Your task to perform on an android device: Open Maps and search for coffee Image 0: 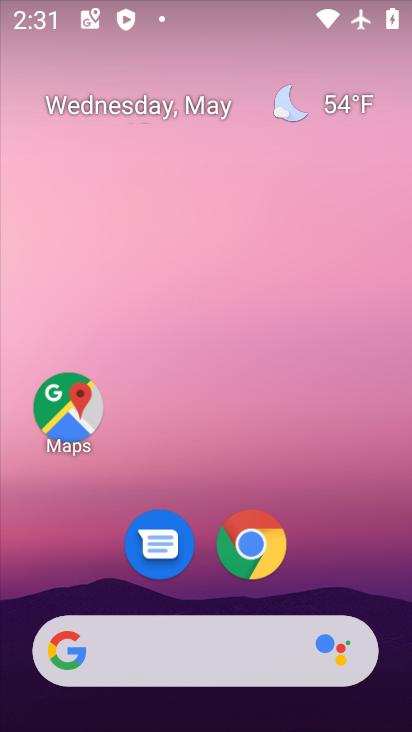
Step 0: drag from (334, 557) to (322, 93)
Your task to perform on an android device: Open Maps and search for coffee Image 1: 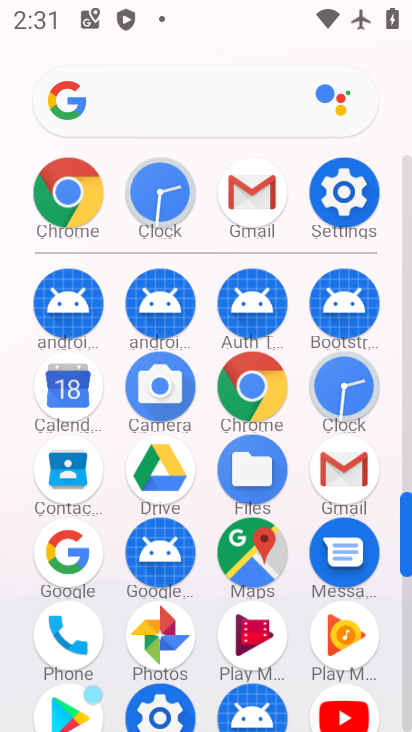
Step 1: click (244, 561)
Your task to perform on an android device: Open Maps and search for coffee Image 2: 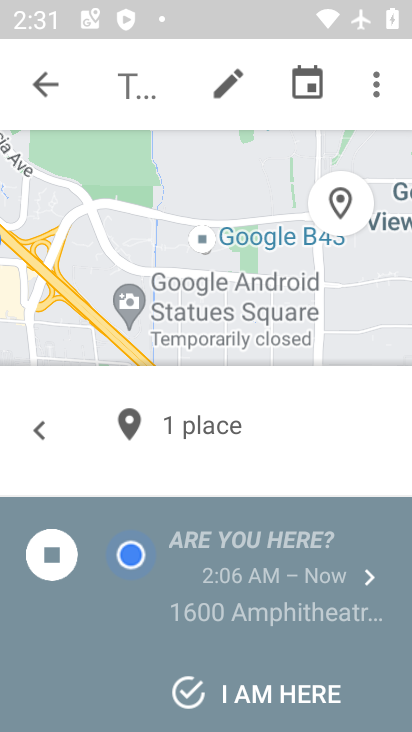
Step 2: click (32, 86)
Your task to perform on an android device: Open Maps and search for coffee Image 3: 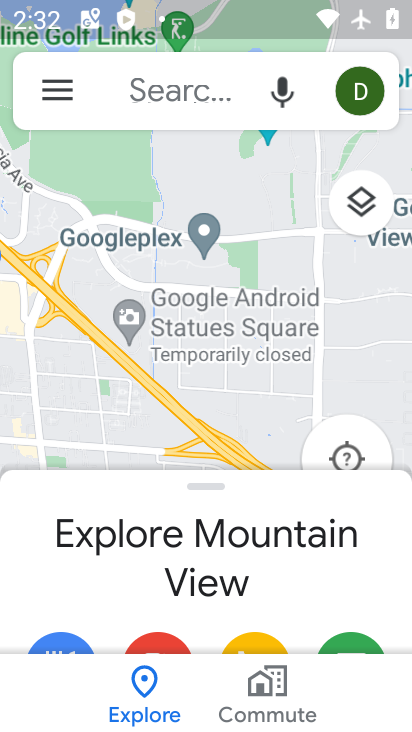
Step 3: click (106, 79)
Your task to perform on an android device: Open Maps and search for coffee Image 4: 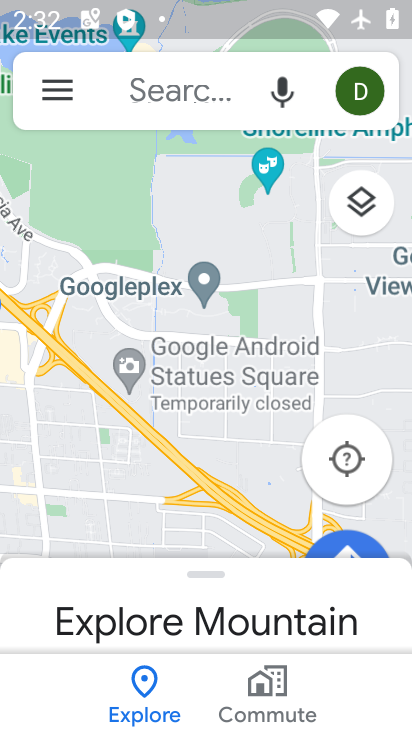
Step 4: click (151, 116)
Your task to perform on an android device: Open Maps and search for coffee Image 5: 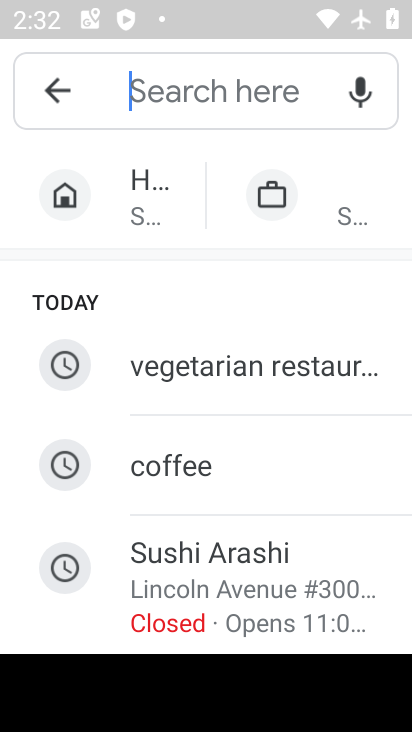
Step 5: click (245, 453)
Your task to perform on an android device: Open Maps and search for coffee Image 6: 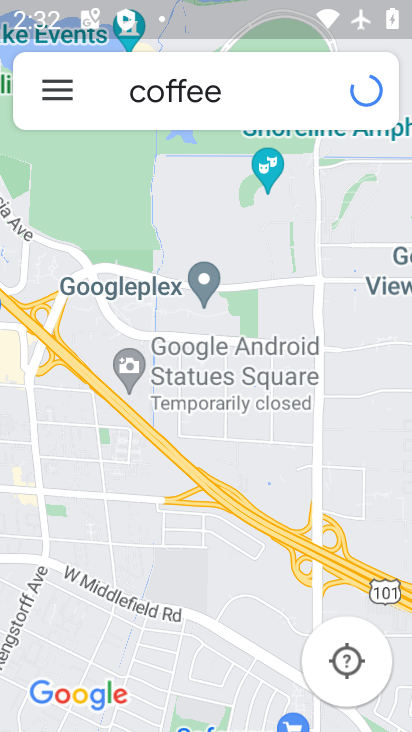
Step 6: task complete